Your task to perform on an android device: turn on wifi Image 0: 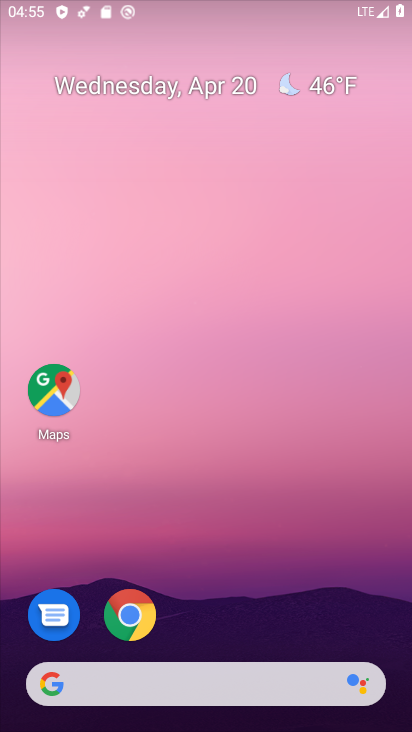
Step 0: drag from (114, 158) to (107, 433)
Your task to perform on an android device: turn on wifi Image 1: 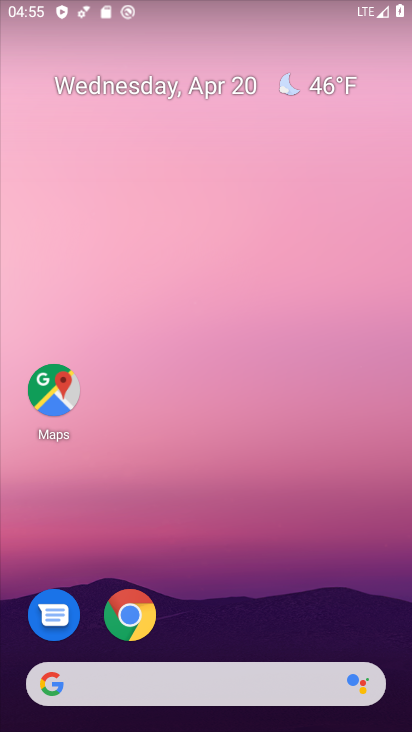
Step 1: drag from (128, 276) to (171, 514)
Your task to perform on an android device: turn on wifi Image 2: 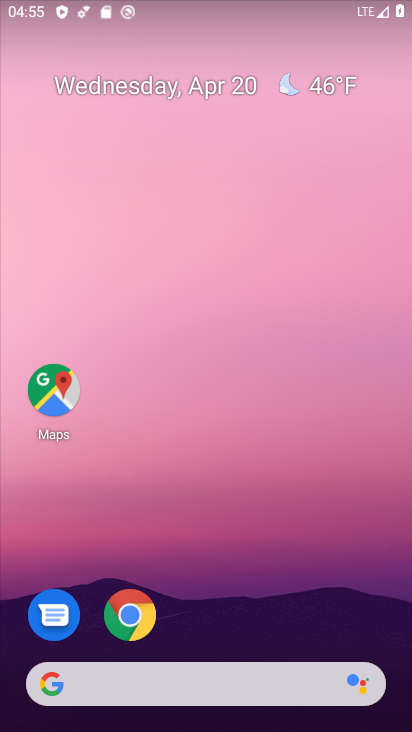
Step 2: drag from (75, 6) to (115, 392)
Your task to perform on an android device: turn on wifi Image 3: 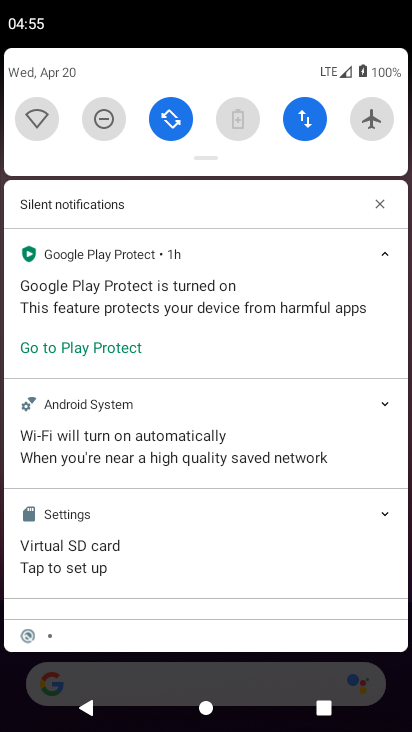
Step 3: click (38, 118)
Your task to perform on an android device: turn on wifi Image 4: 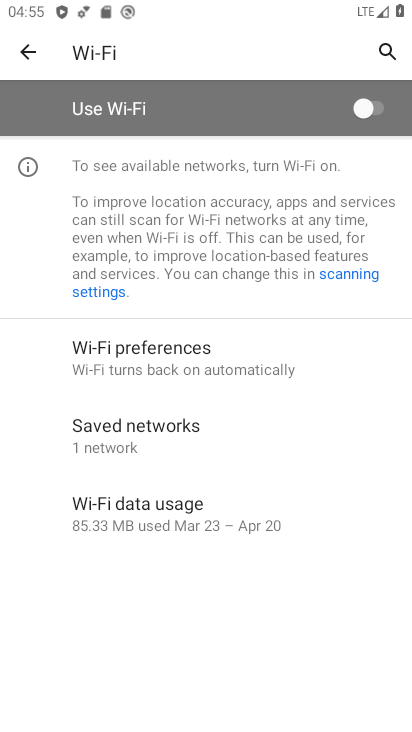
Step 4: click (371, 106)
Your task to perform on an android device: turn on wifi Image 5: 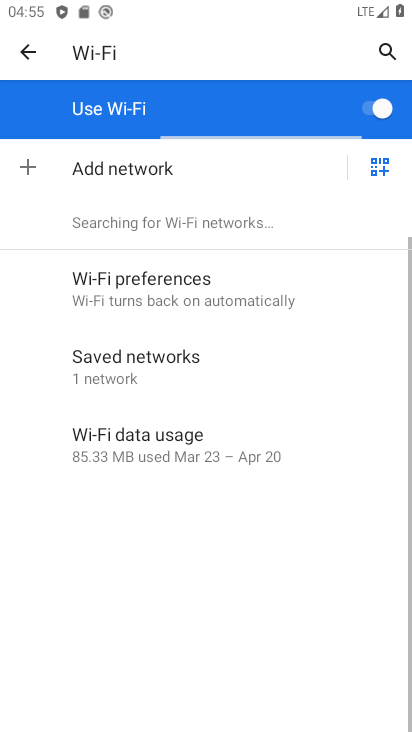
Step 5: task complete